Your task to perform on an android device: Open eBay Image 0: 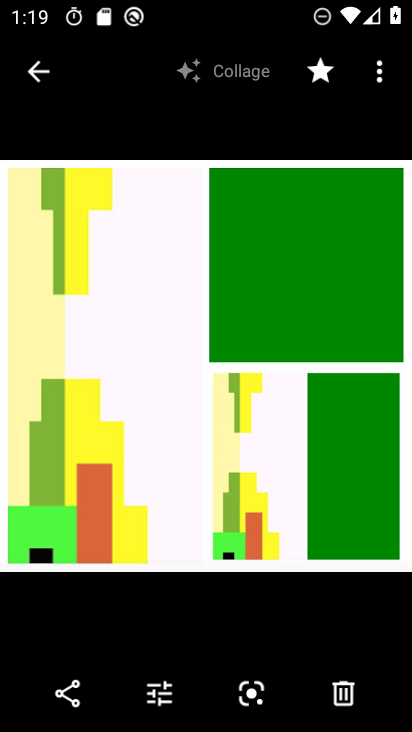
Step 0: press home button
Your task to perform on an android device: Open eBay Image 1: 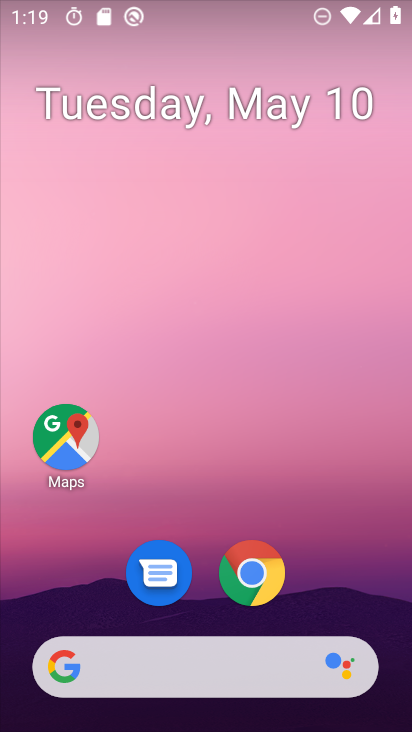
Step 1: drag from (356, 535) to (335, 126)
Your task to perform on an android device: Open eBay Image 2: 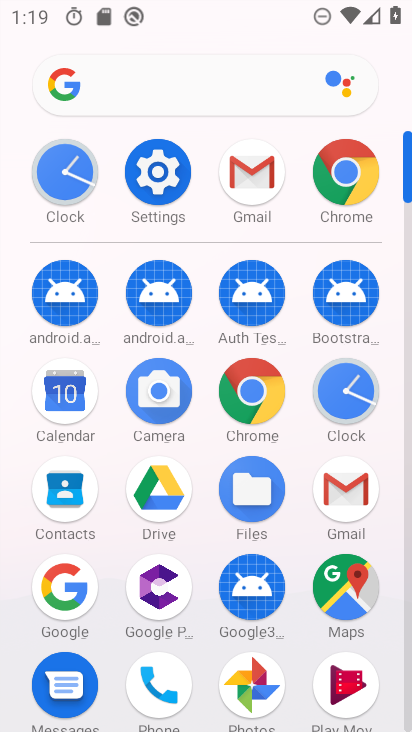
Step 2: click (330, 172)
Your task to perform on an android device: Open eBay Image 3: 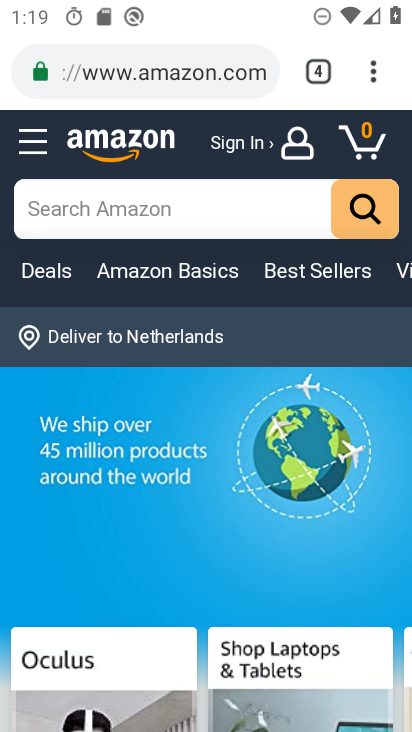
Step 3: click (236, 72)
Your task to perform on an android device: Open eBay Image 4: 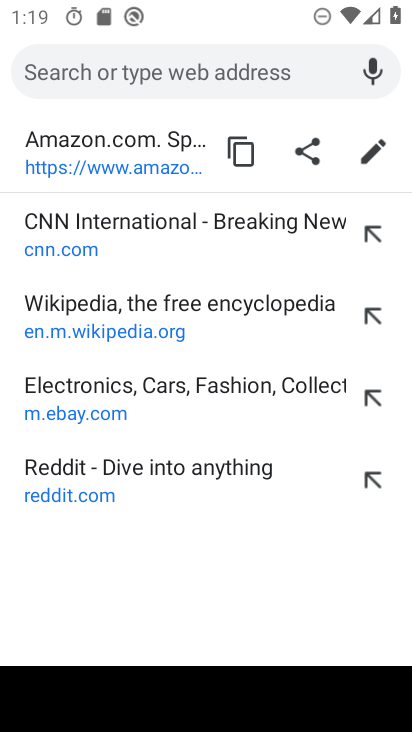
Step 4: type "ebay"
Your task to perform on an android device: Open eBay Image 5: 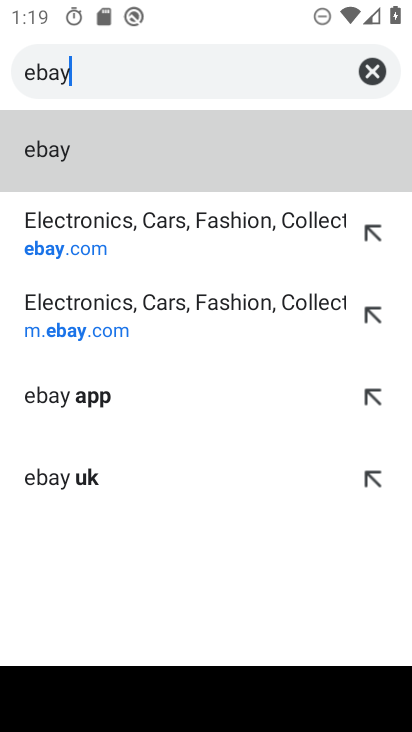
Step 5: click (88, 156)
Your task to perform on an android device: Open eBay Image 6: 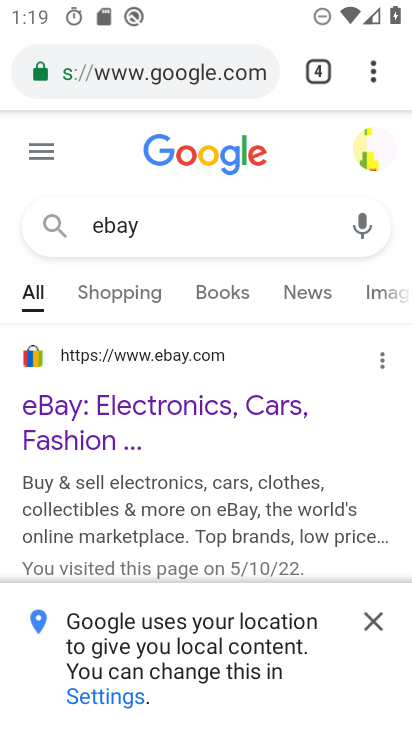
Step 6: click (174, 404)
Your task to perform on an android device: Open eBay Image 7: 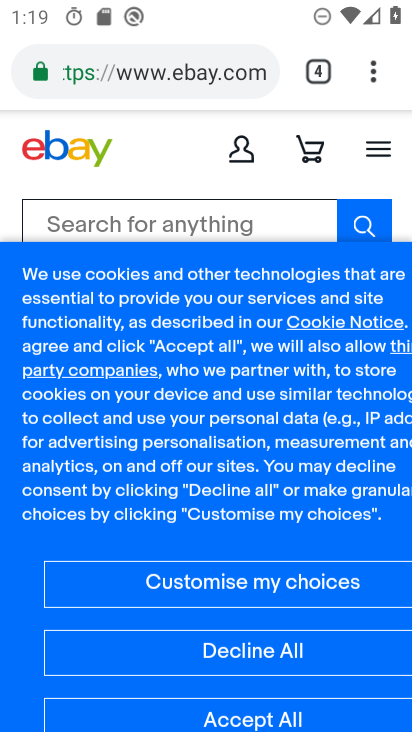
Step 7: task complete